Your task to perform on an android device: turn on javascript in the chrome app Image 0: 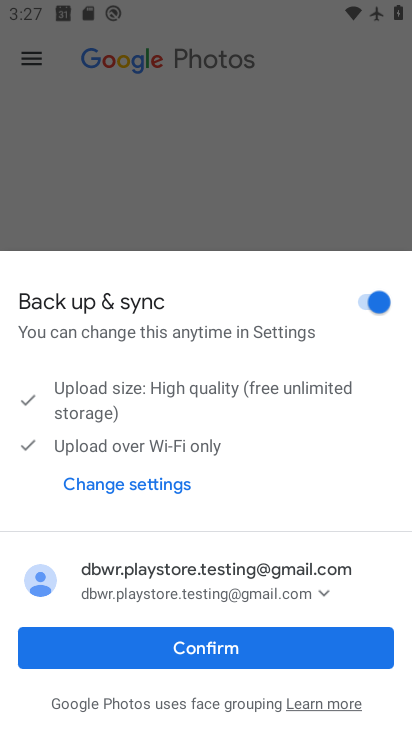
Step 0: press home button
Your task to perform on an android device: turn on javascript in the chrome app Image 1: 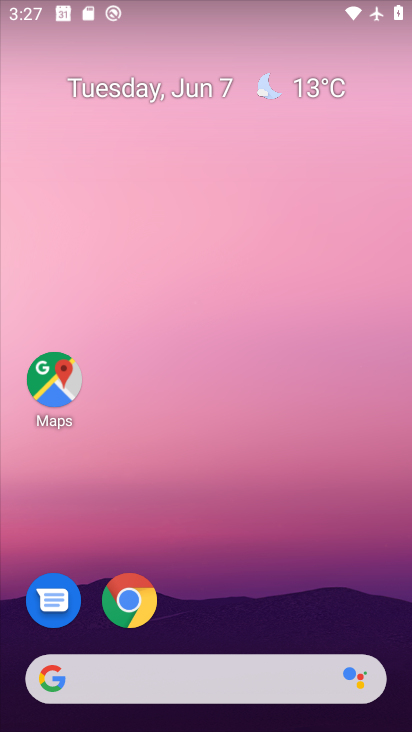
Step 1: drag from (290, 610) to (218, 141)
Your task to perform on an android device: turn on javascript in the chrome app Image 2: 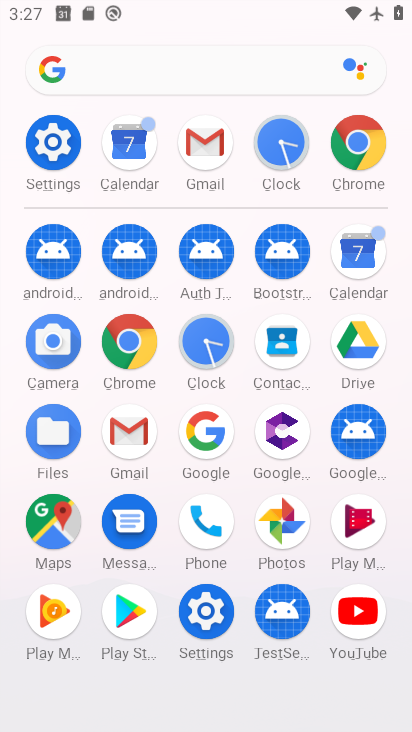
Step 2: click (131, 347)
Your task to perform on an android device: turn on javascript in the chrome app Image 3: 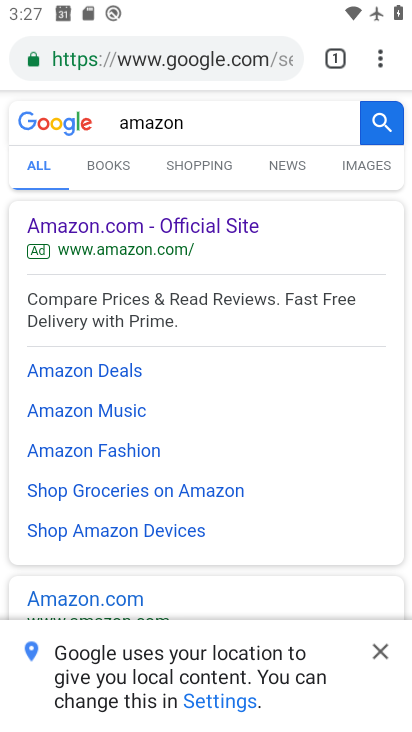
Step 3: drag from (388, 48) to (241, 625)
Your task to perform on an android device: turn on javascript in the chrome app Image 4: 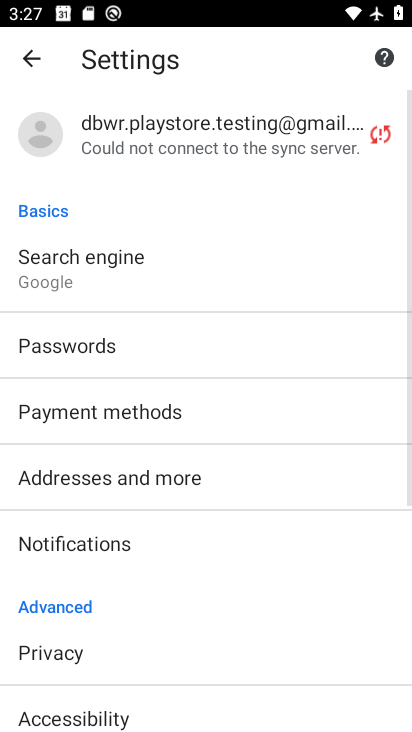
Step 4: drag from (180, 583) to (209, 193)
Your task to perform on an android device: turn on javascript in the chrome app Image 5: 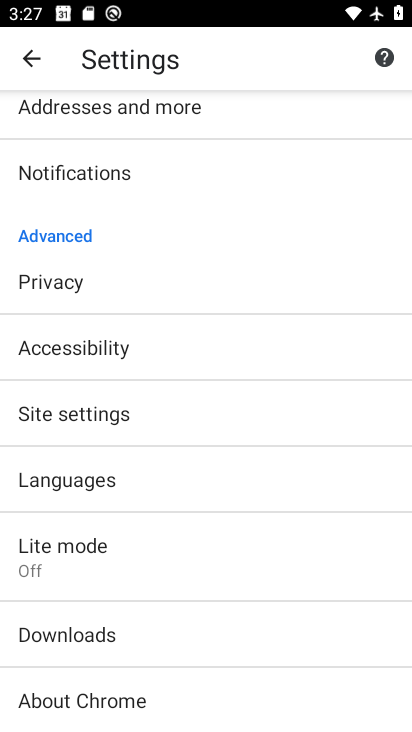
Step 5: click (127, 407)
Your task to perform on an android device: turn on javascript in the chrome app Image 6: 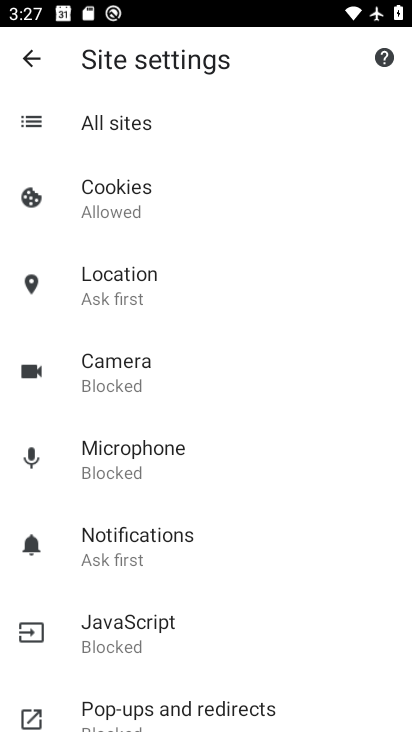
Step 6: click (138, 627)
Your task to perform on an android device: turn on javascript in the chrome app Image 7: 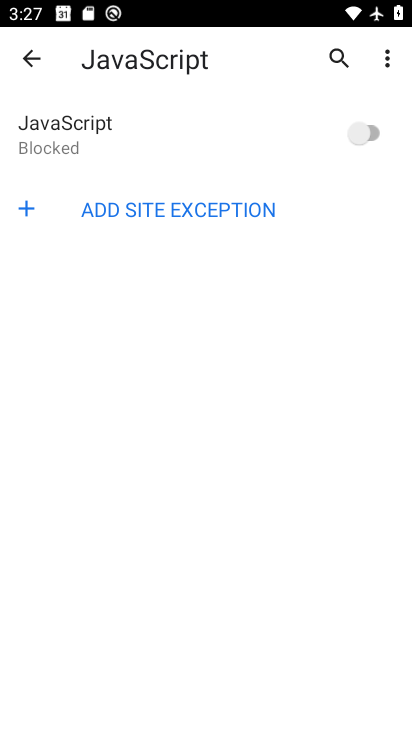
Step 7: click (350, 139)
Your task to perform on an android device: turn on javascript in the chrome app Image 8: 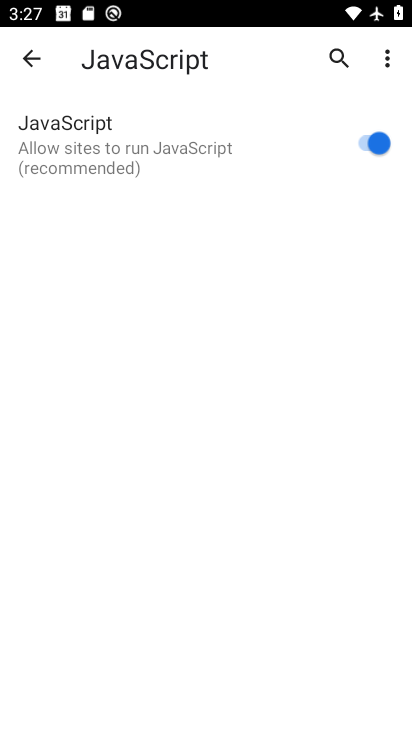
Step 8: task complete